Your task to perform on an android device: Find coffee shops on Maps Image 0: 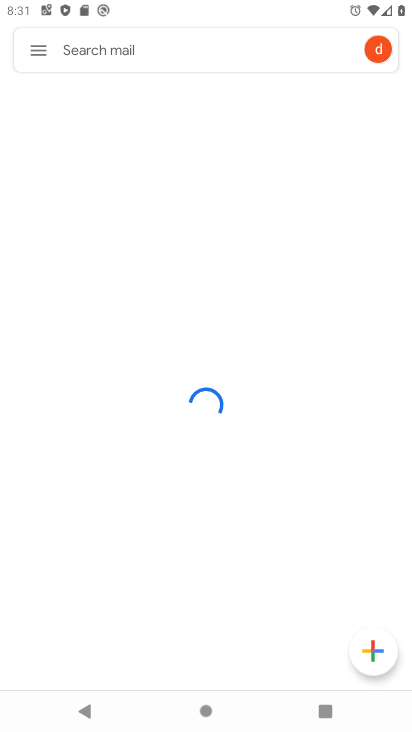
Step 0: press home button
Your task to perform on an android device: Find coffee shops on Maps Image 1: 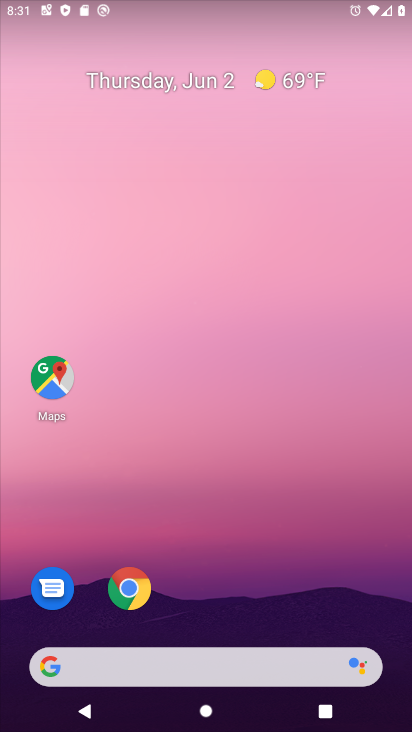
Step 1: drag from (239, 615) to (239, 38)
Your task to perform on an android device: Find coffee shops on Maps Image 2: 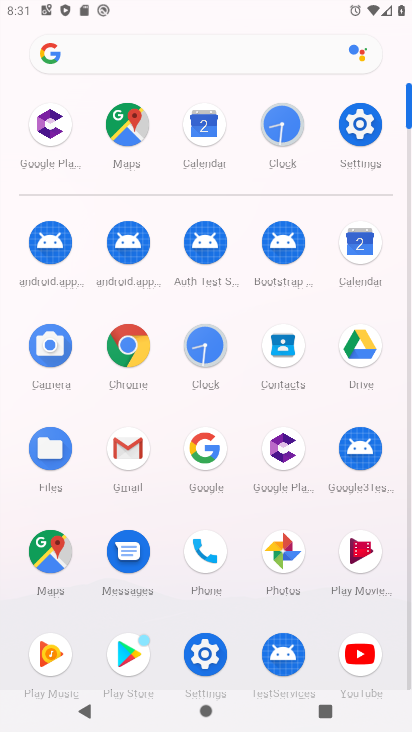
Step 2: click (46, 554)
Your task to perform on an android device: Find coffee shops on Maps Image 3: 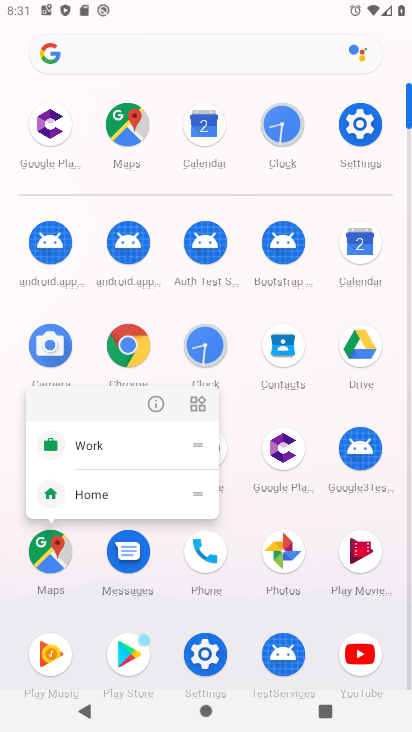
Step 3: click (44, 580)
Your task to perform on an android device: Find coffee shops on Maps Image 4: 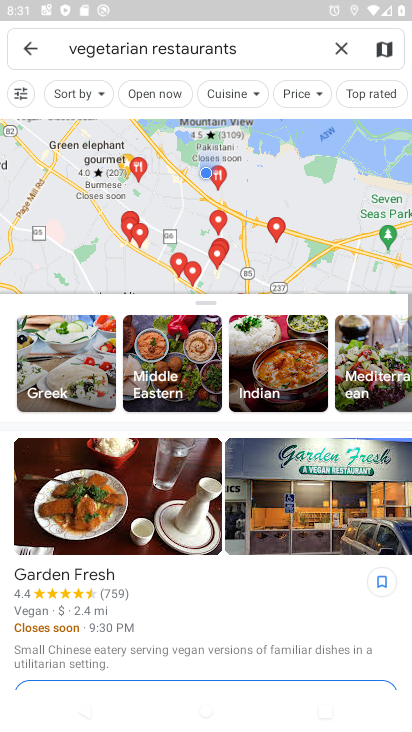
Step 4: click (344, 51)
Your task to perform on an android device: Find coffee shops on Maps Image 5: 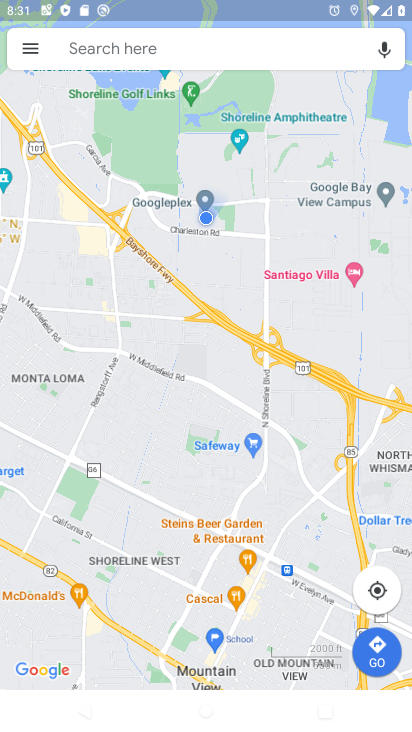
Step 5: click (155, 52)
Your task to perform on an android device: Find coffee shops on Maps Image 6: 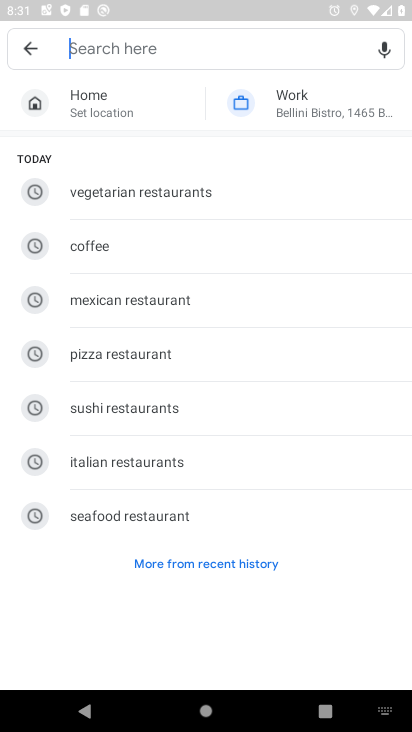
Step 6: type "coffee shops"
Your task to perform on an android device: Find coffee shops on Maps Image 7: 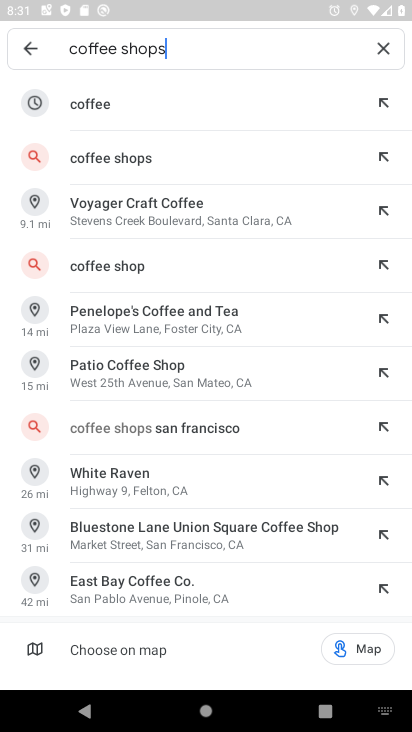
Step 7: click (108, 156)
Your task to perform on an android device: Find coffee shops on Maps Image 8: 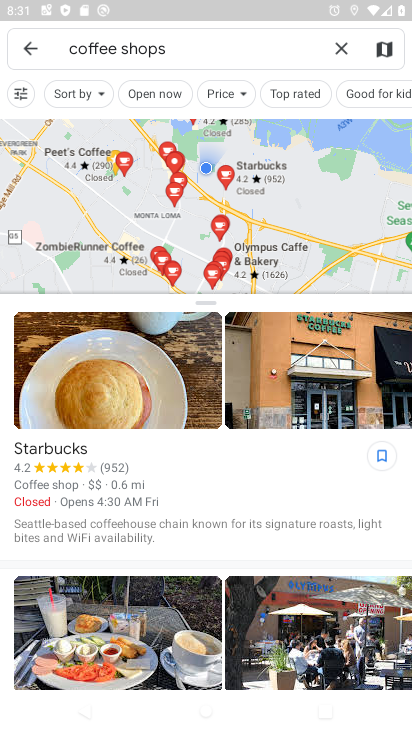
Step 8: task complete